Your task to perform on an android device: turn off location Image 0: 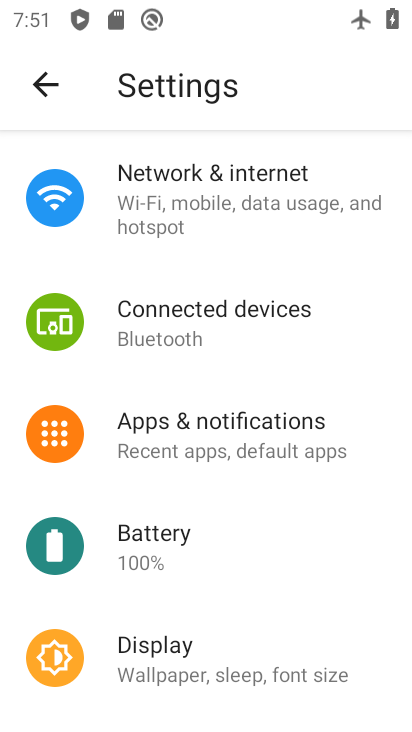
Step 0: drag from (197, 209) to (216, 543)
Your task to perform on an android device: turn off location Image 1: 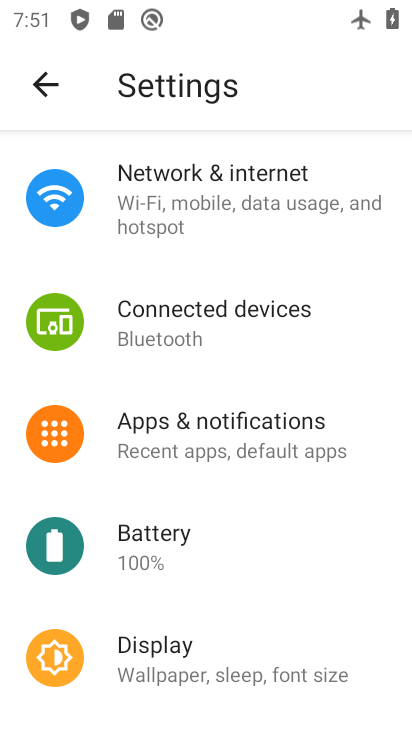
Step 1: drag from (217, 650) to (226, 347)
Your task to perform on an android device: turn off location Image 2: 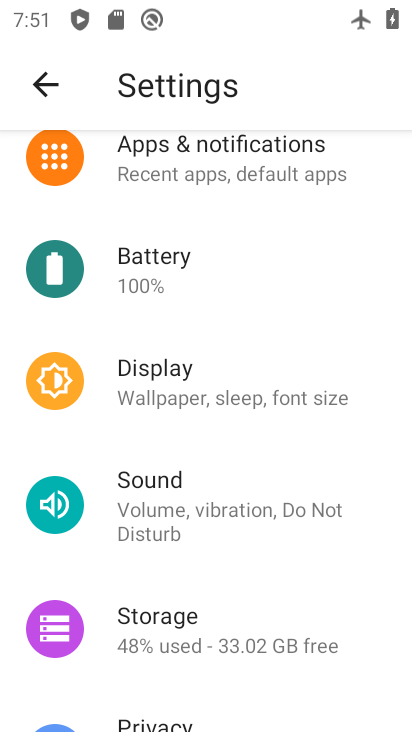
Step 2: drag from (189, 672) to (195, 562)
Your task to perform on an android device: turn off location Image 3: 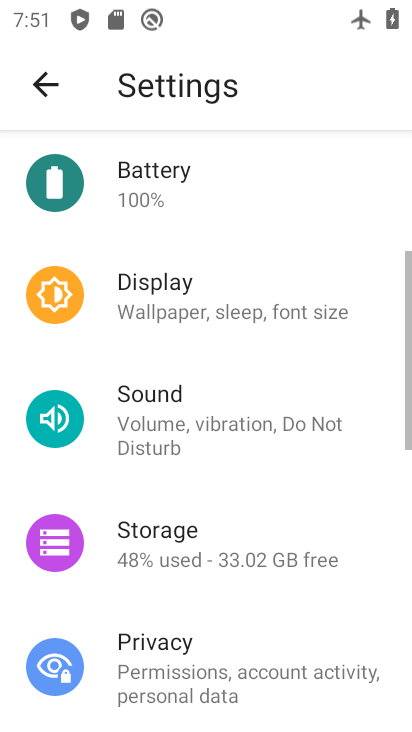
Step 3: drag from (195, 461) to (195, 316)
Your task to perform on an android device: turn off location Image 4: 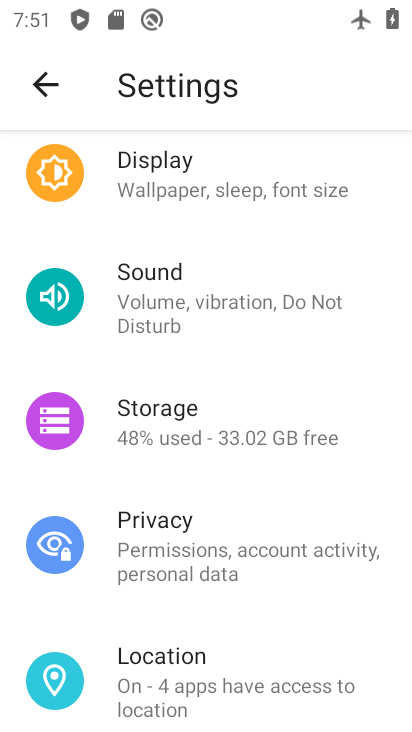
Step 4: click (165, 663)
Your task to perform on an android device: turn off location Image 5: 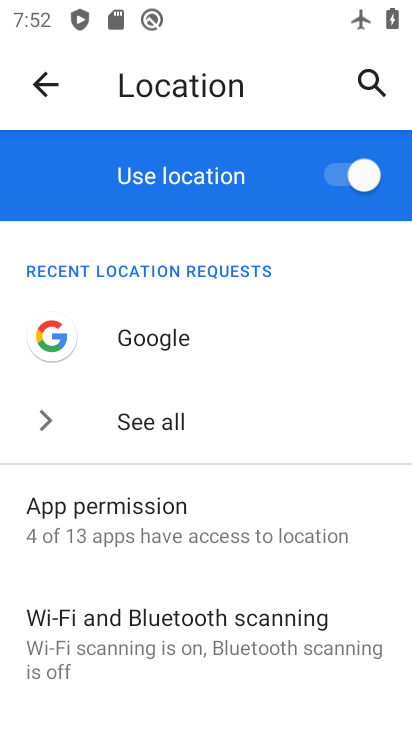
Step 5: click (342, 172)
Your task to perform on an android device: turn off location Image 6: 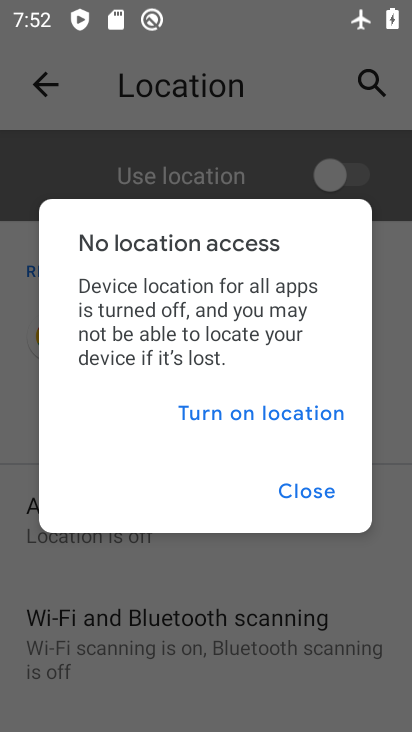
Step 6: click (308, 491)
Your task to perform on an android device: turn off location Image 7: 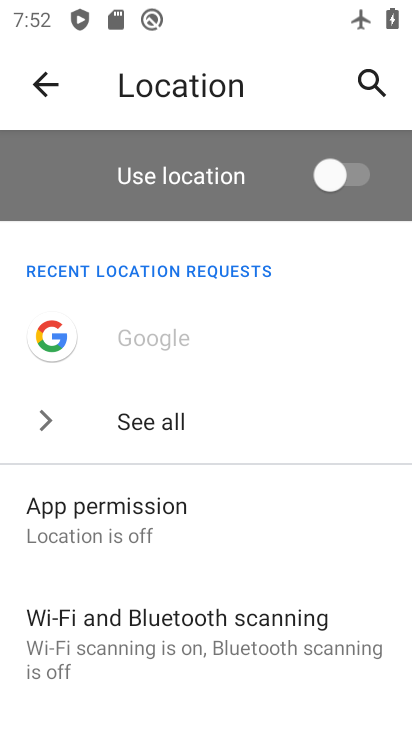
Step 7: task complete